Your task to perform on an android device: Open the Play Movies app and select the watchlist tab. Image 0: 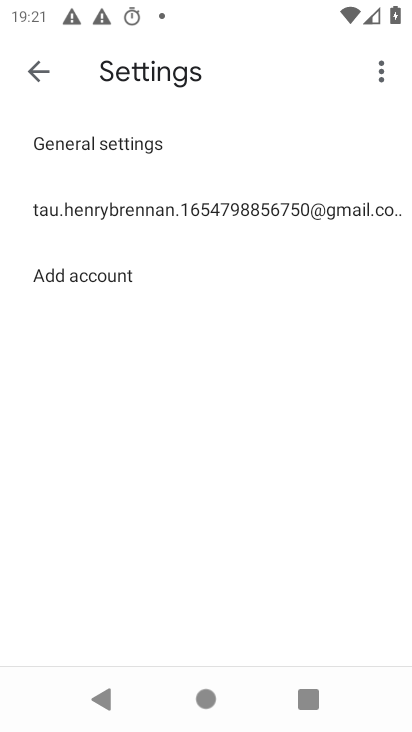
Step 0: press home button
Your task to perform on an android device: Open the Play Movies app and select the watchlist tab. Image 1: 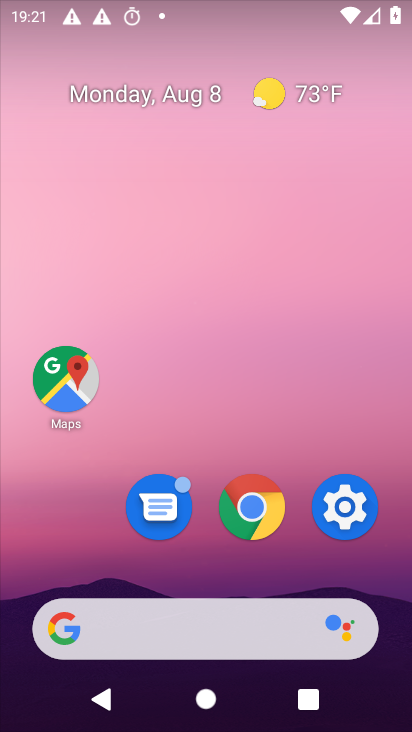
Step 1: drag from (249, 672) to (168, 264)
Your task to perform on an android device: Open the Play Movies app and select the watchlist tab. Image 2: 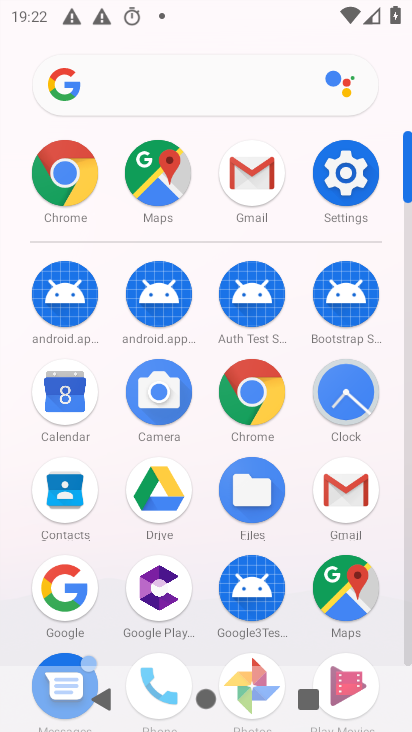
Step 2: click (355, 649)
Your task to perform on an android device: Open the Play Movies app and select the watchlist tab. Image 3: 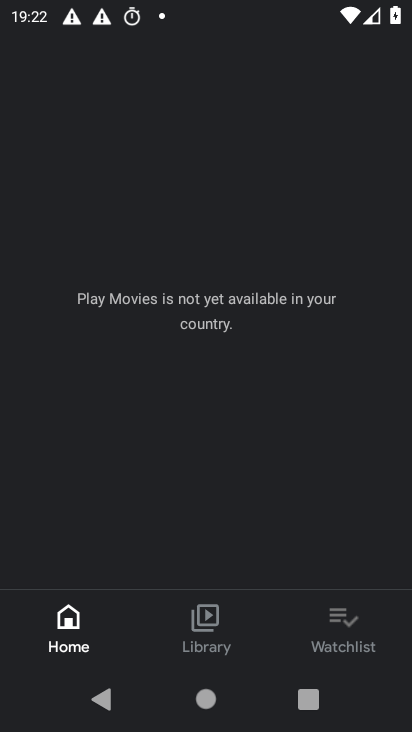
Step 3: click (352, 646)
Your task to perform on an android device: Open the Play Movies app and select the watchlist tab. Image 4: 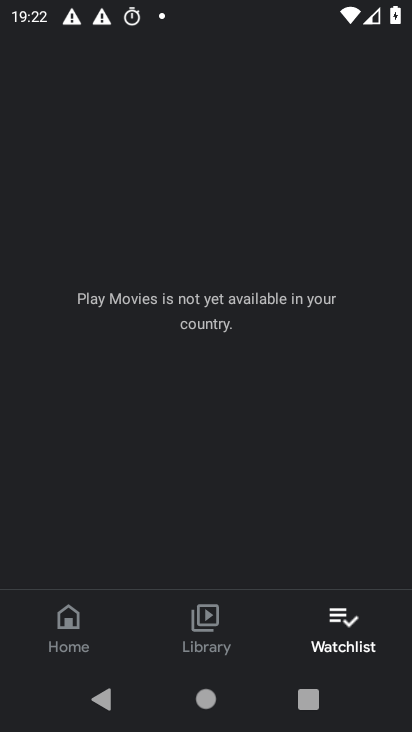
Step 4: task complete